Your task to perform on an android device: What's the weather? Image 0: 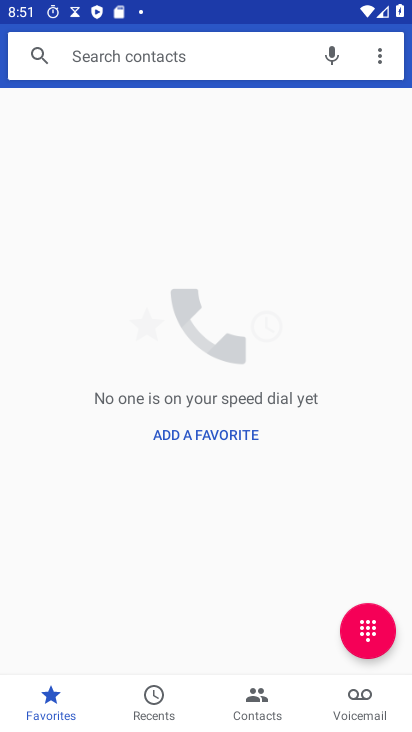
Step 0: press home button
Your task to perform on an android device: What's the weather? Image 1: 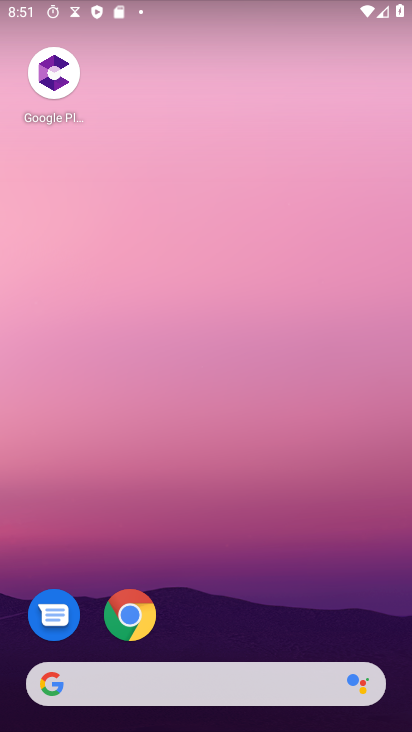
Step 1: drag from (213, 614) to (171, 234)
Your task to perform on an android device: What's the weather? Image 2: 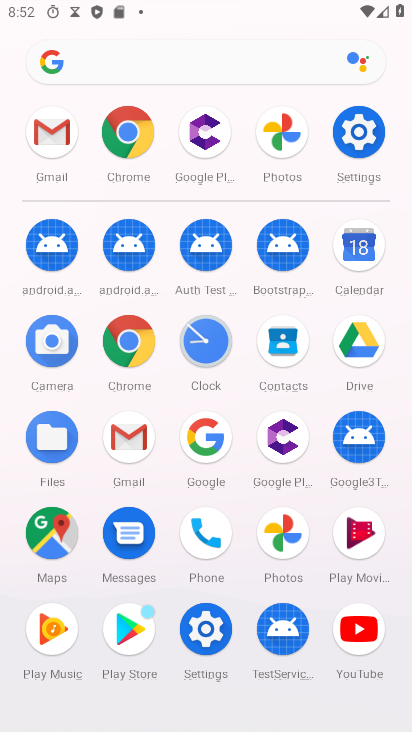
Step 2: click (201, 437)
Your task to perform on an android device: What's the weather? Image 3: 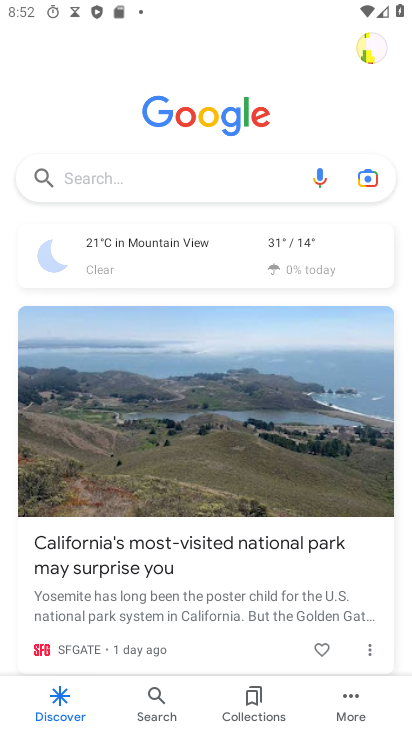
Step 3: click (292, 243)
Your task to perform on an android device: What's the weather? Image 4: 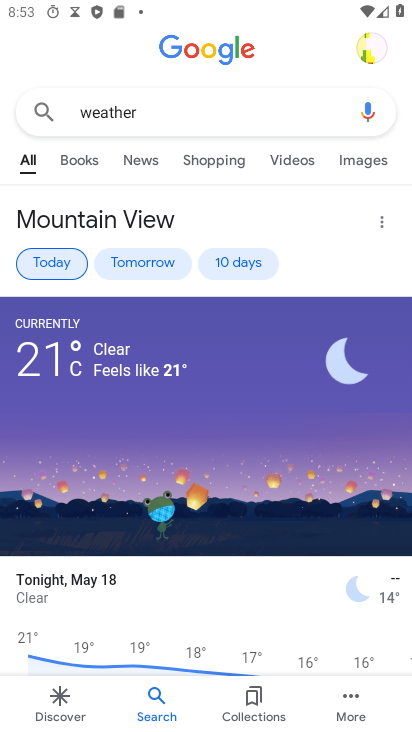
Step 4: task complete